Your task to perform on an android device: Go to privacy settings Image 0: 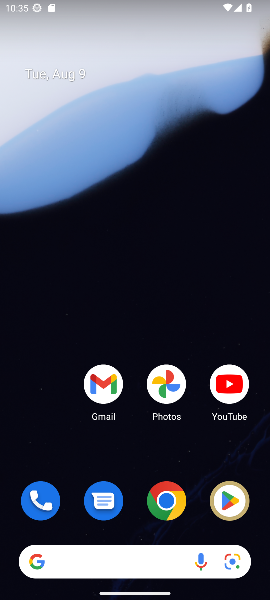
Step 0: drag from (117, 517) to (137, 112)
Your task to perform on an android device: Go to privacy settings Image 1: 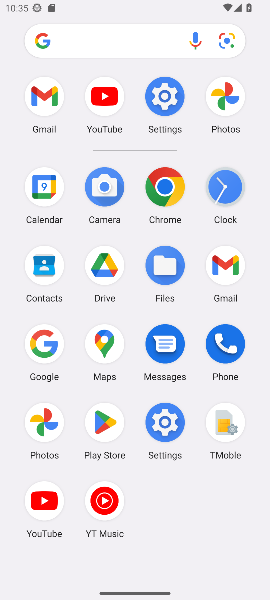
Step 1: click (167, 95)
Your task to perform on an android device: Go to privacy settings Image 2: 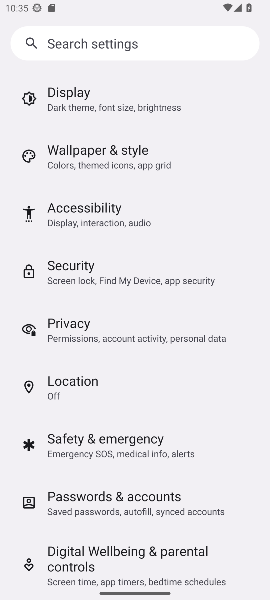
Step 2: click (70, 323)
Your task to perform on an android device: Go to privacy settings Image 3: 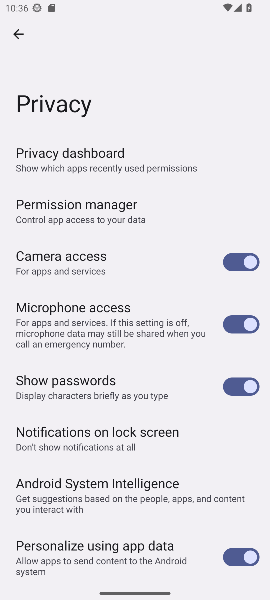
Step 3: task complete